Your task to perform on an android device: install app "YouTube Kids" Image 0: 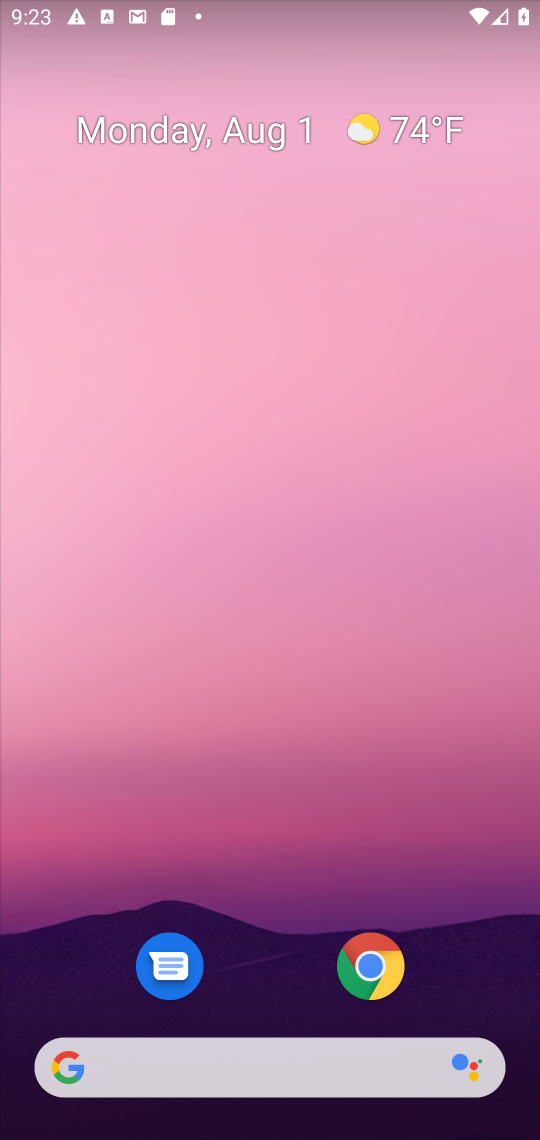
Step 0: drag from (489, 987) to (424, 122)
Your task to perform on an android device: install app "YouTube Kids" Image 1: 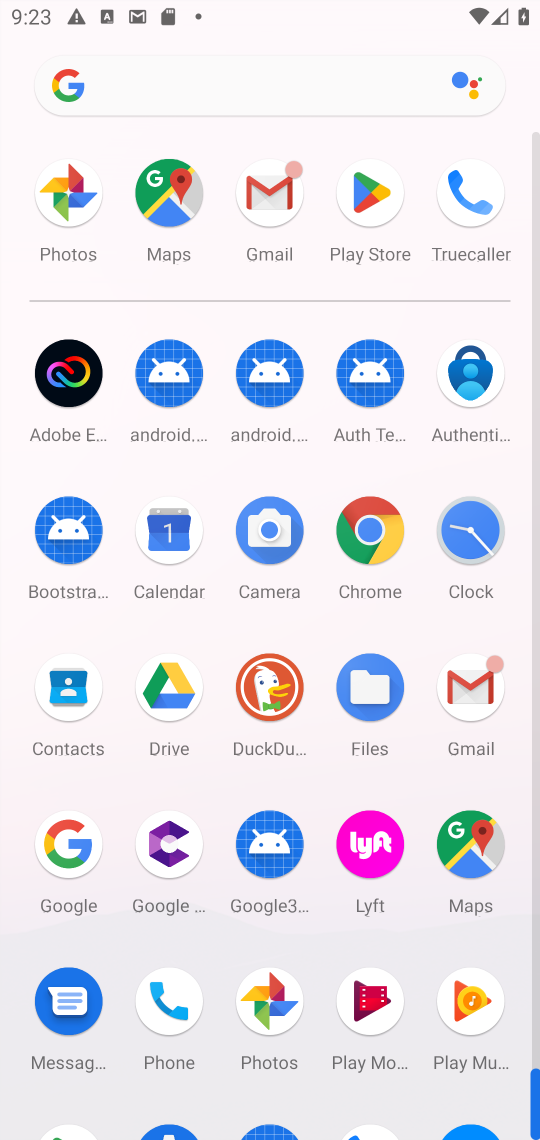
Step 1: click (368, 200)
Your task to perform on an android device: install app "YouTube Kids" Image 2: 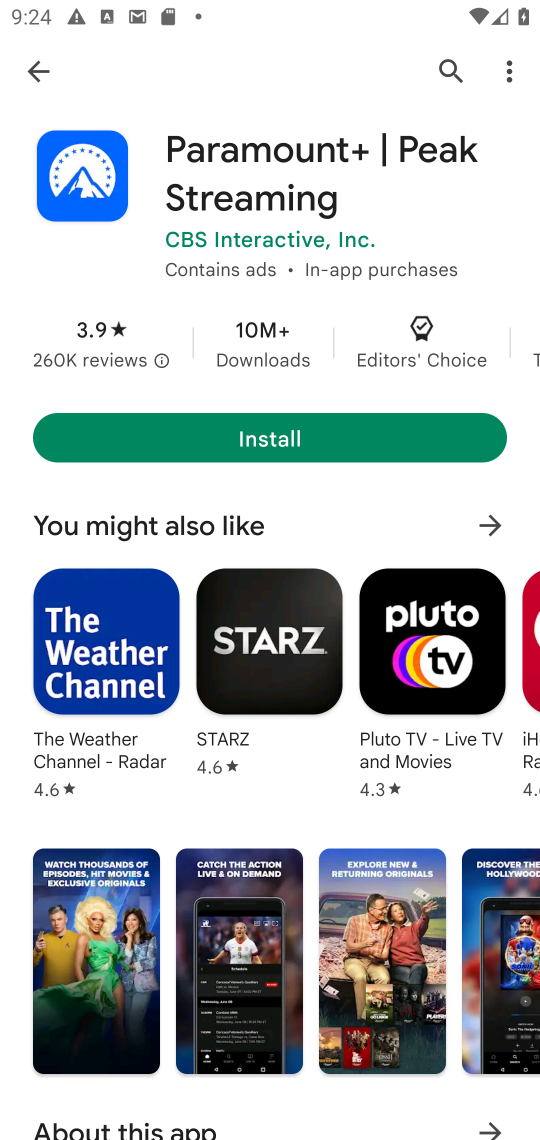
Step 2: click (457, 65)
Your task to perform on an android device: install app "YouTube Kids" Image 3: 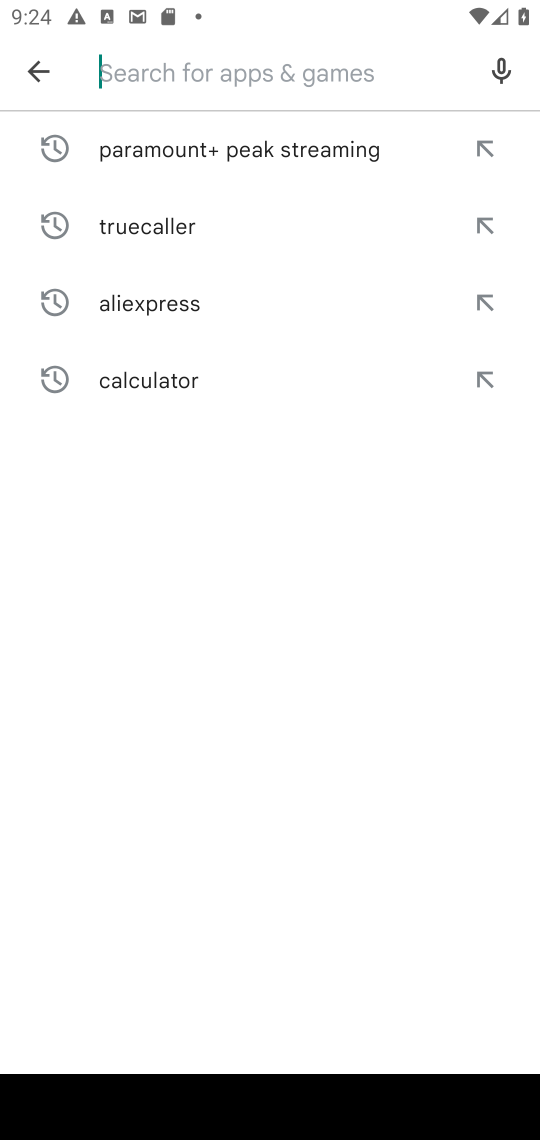
Step 3: type "YouTube Kids"
Your task to perform on an android device: install app "YouTube Kids" Image 4: 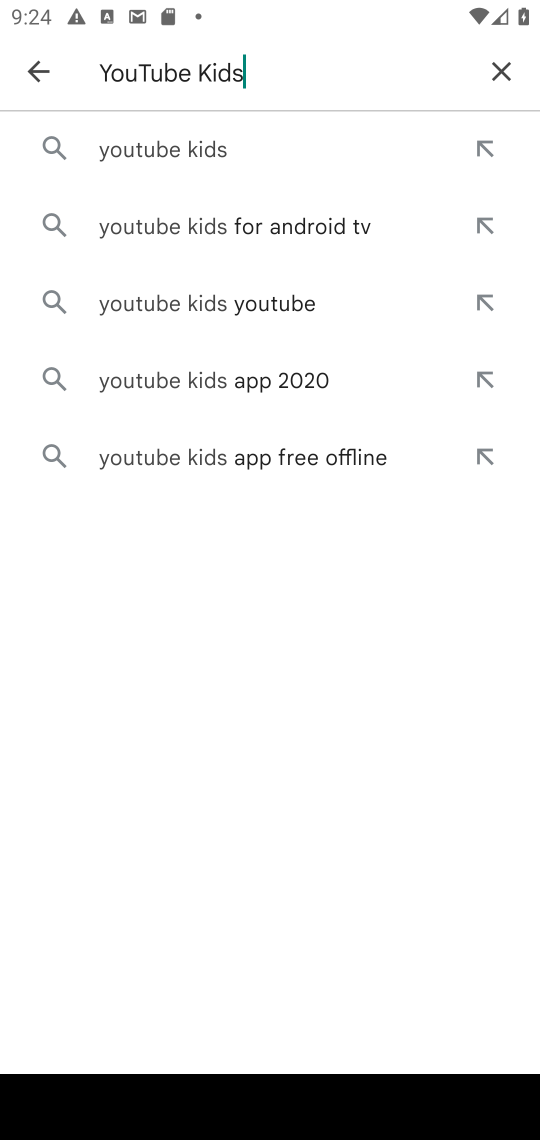
Step 4: click (213, 147)
Your task to perform on an android device: install app "YouTube Kids" Image 5: 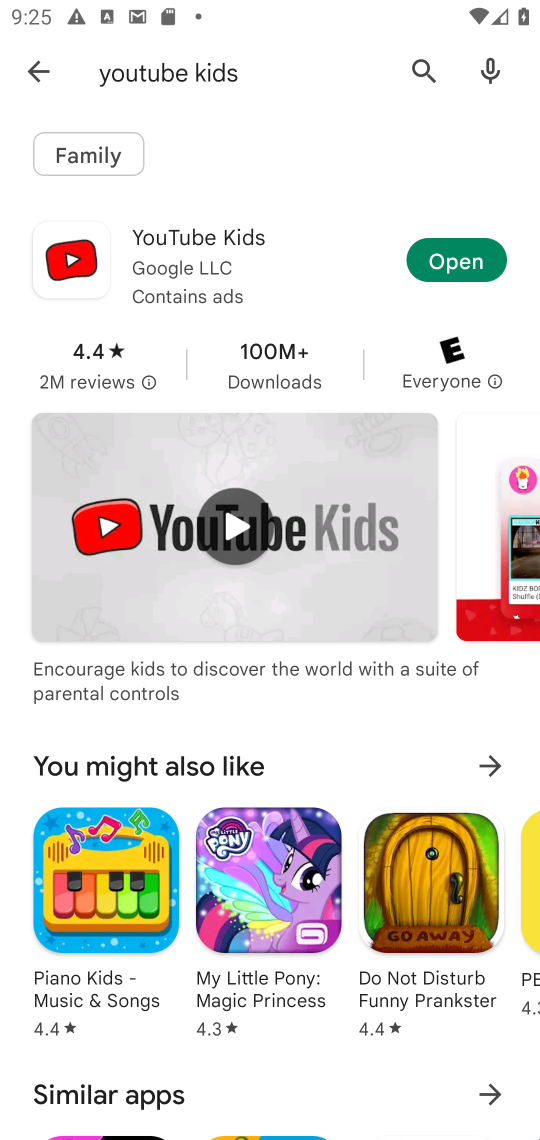
Step 5: task complete